Your task to perform on an android device: turn off wifi Image 0: 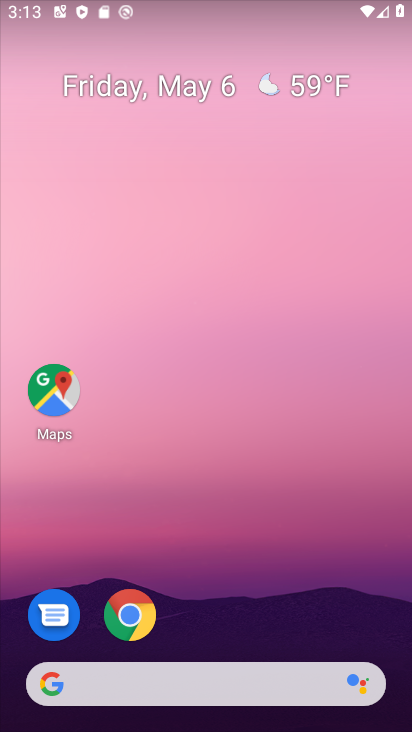
Step 0: drag from (239, 553) to (220, 205)
Your task to perform on an android device: turn off wifi Image 1: 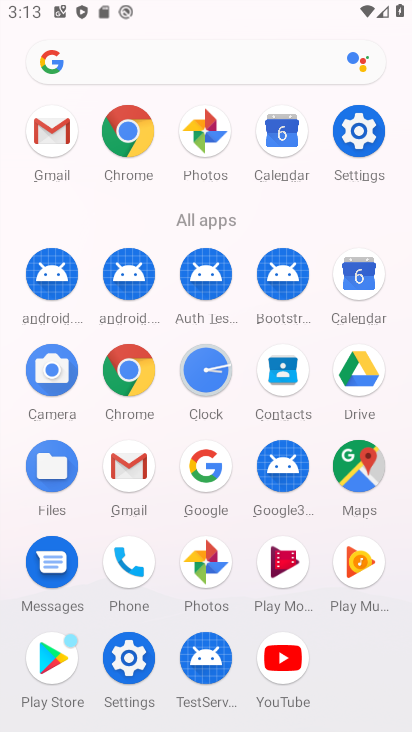
Step 1: click (137, 660)
Your task to perform on an android device: turn off wifi Image 2: 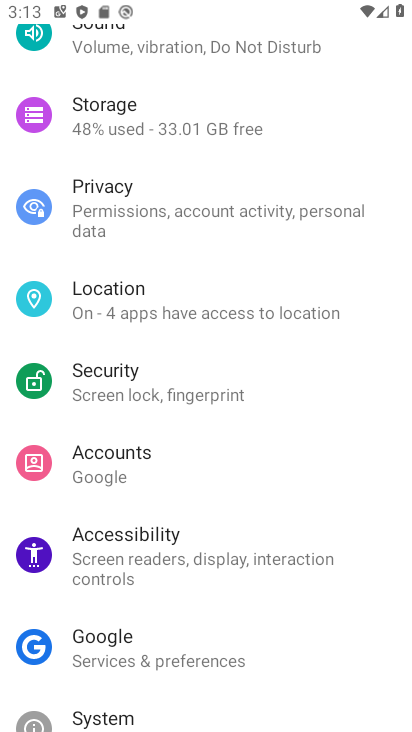
Step 2: drag from (210, 135) to (219, 669)
Your task to perform on an android device: turn off wifi Image 3: 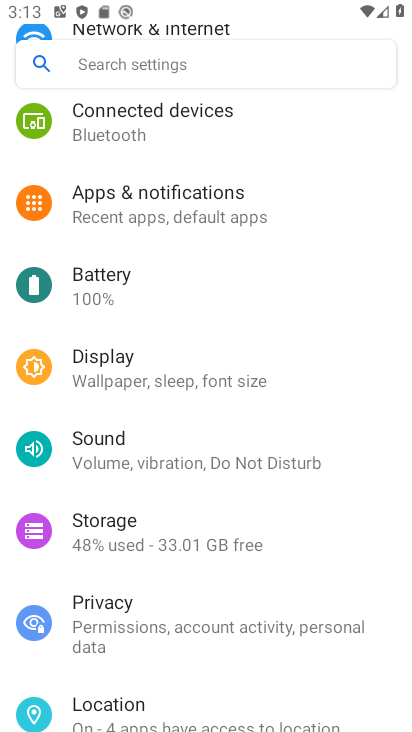
Step 3: drag from (182, 157) to (205, 641)
Your task to perform on an android device: turn off wifi Image 4: 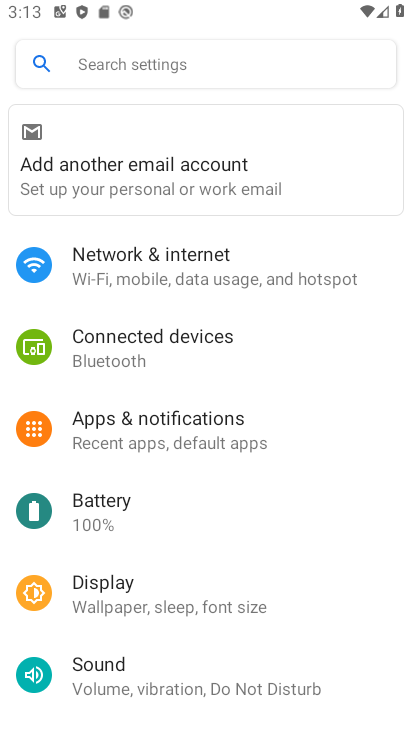
Step 4: click (198, 278)
Your task to perform on an android device: turn off wifi Image 5: 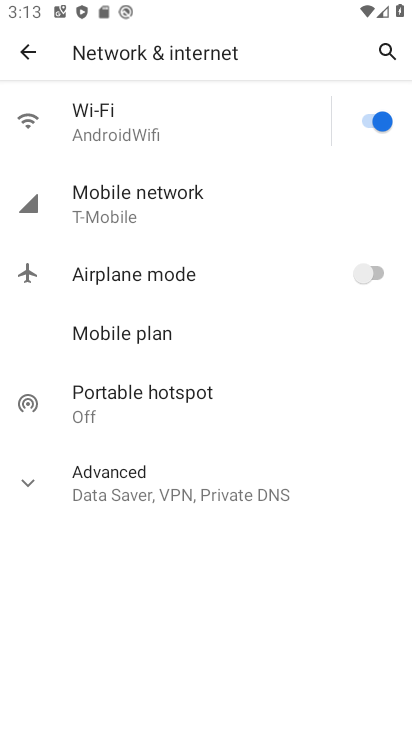
Step 5: click (361, 116)
Your task to perform on an android device: turn off wifi Image 6: 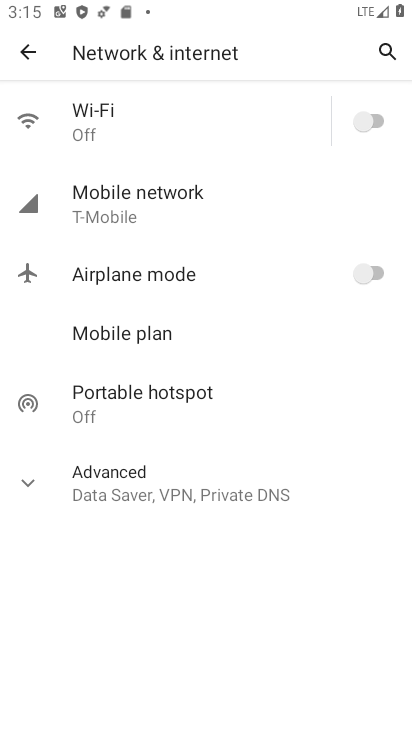
Step 6: task complete